Your task to perform on an android device: set the stopwatch Image 0: 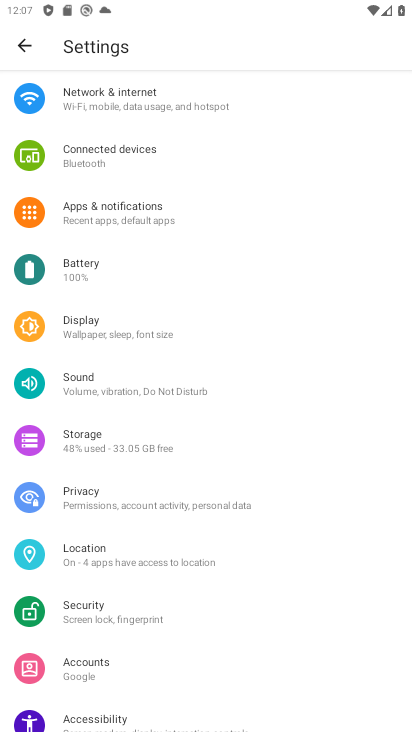
Step 0: press home button
Your task to perform on an android device: set the stopwatch Image 1: 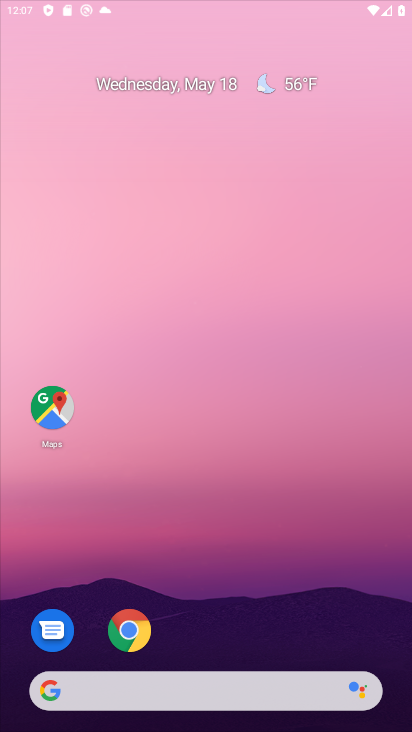
Step 1: press home button
Your task to perform on an android device: set the stopwatch Image 2: 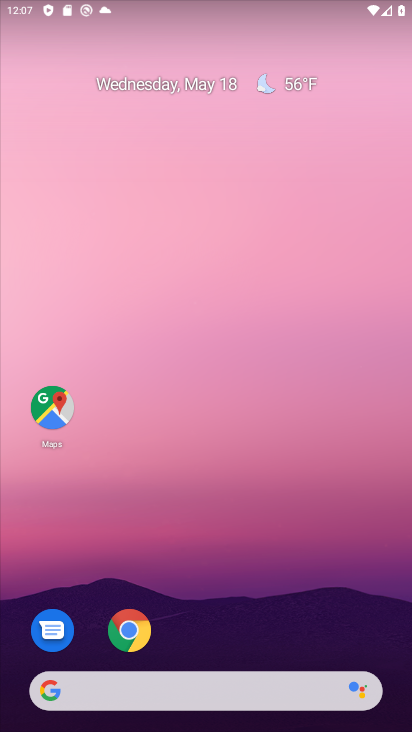
Step 2: drag from (261, 688) to (261, 366)
Your task to perform on an android device: set the stopwatch Image 3: 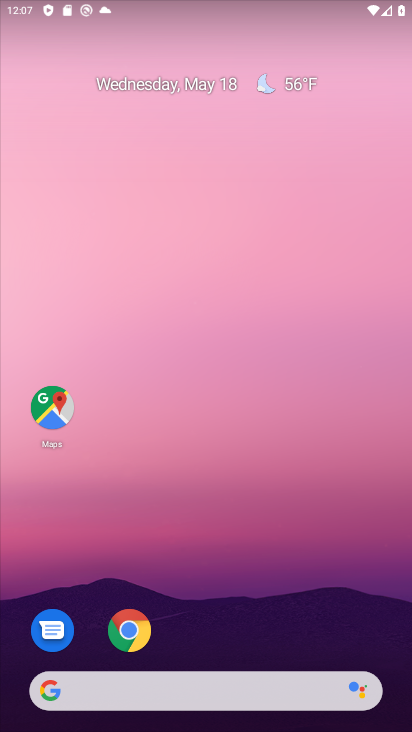
Step 3: drag from (335, 629) to (281, 258)
Your task to perform on an android device: set the stopwatch Image 4: 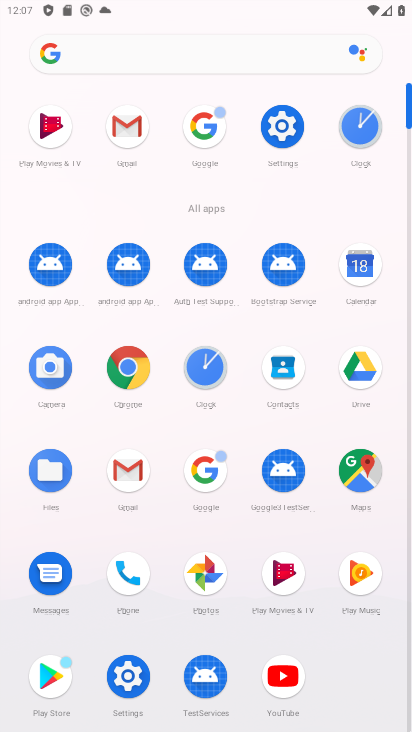
Step 4: click (209, 366)
Your task to perform on an android device: set the stopwatch Image 5: 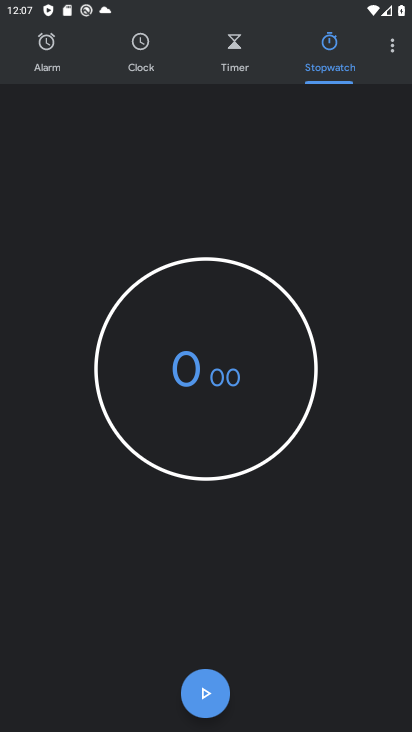
Step 5: click (185, 385)
Your task to perform on an android device: set the stopwatch Image 6: 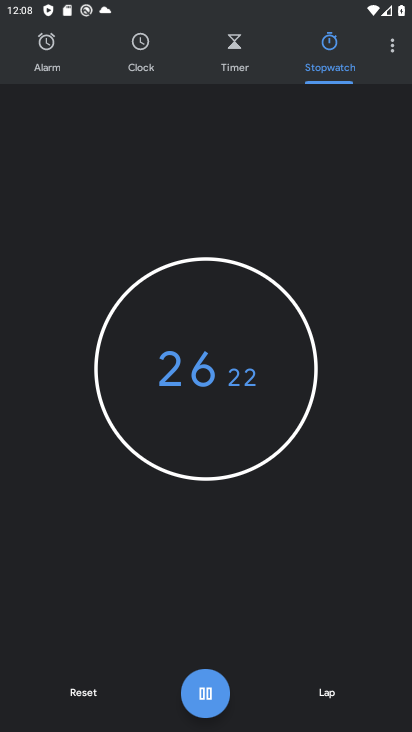
Step 6: task complete